Your task to perform on an android device: Show me productivity apps on the Play Store Image 0: 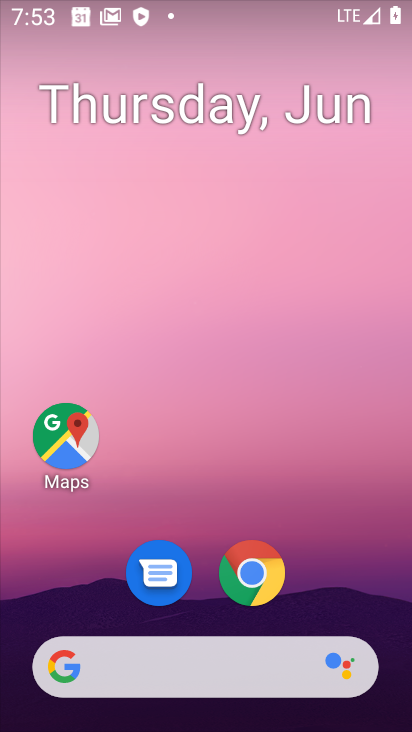
Step 0: drag from (282, 612) to (286, 218)
Your task to perform on an android device: Show me productivity apps on the Play Store Image 1: 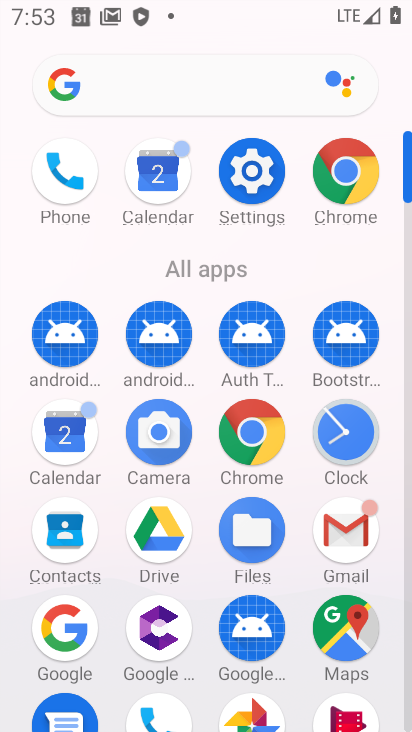
Step 1: drag from (175, 657) to (213, 393)
Your task to perform on an android device: Show me productivity apps on the Play Store Image 2: 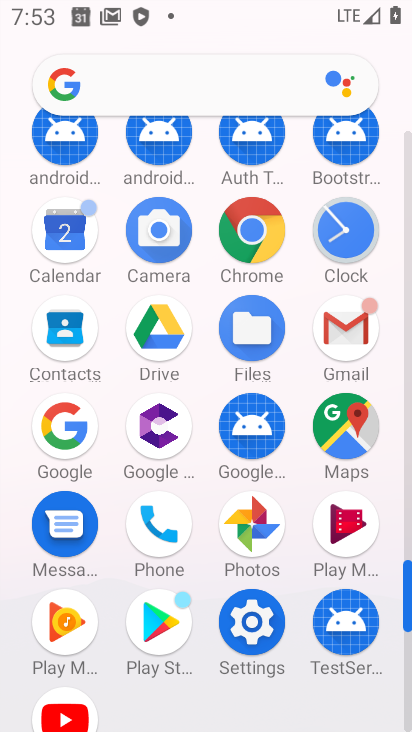
Step 2: click (161, 624)
Your task to perform on an android device: Show me productivity apps on the Play Store Image 3: 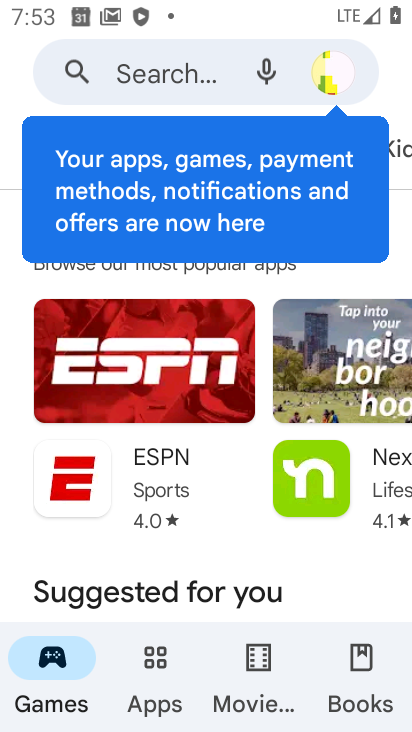
Step 3: click (180, 658)
Your task to perform on an android device: Show me productivity apps on the Play Store Image 4: 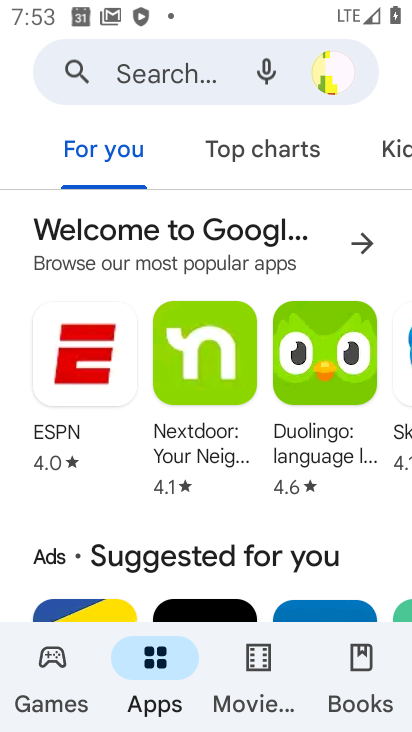
Step 4: task complete